Your task to perform on an android device: toggle pop-ups in chrome Image 0: 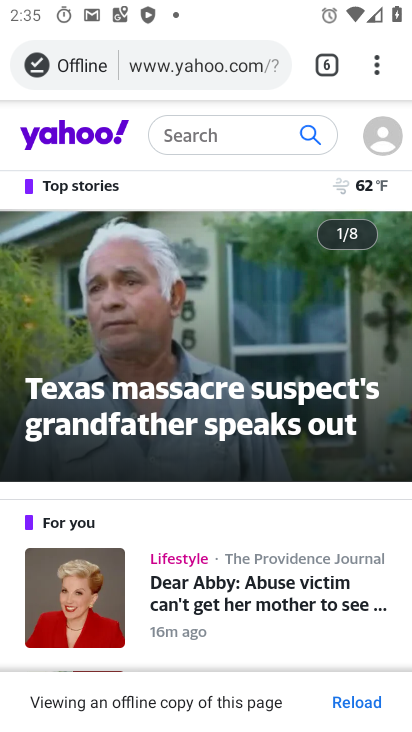
Step 0: press home button
Your task to perform on an android device: toggle pop-ups in chrome Image 1: 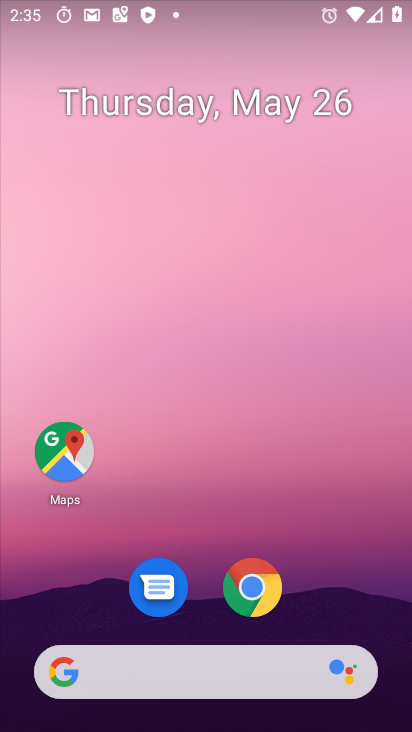
Step 1: drag from (277, 684) to (267, 161)
Your task to perform on an android device: toggle pop-ups in chrome Image 2: 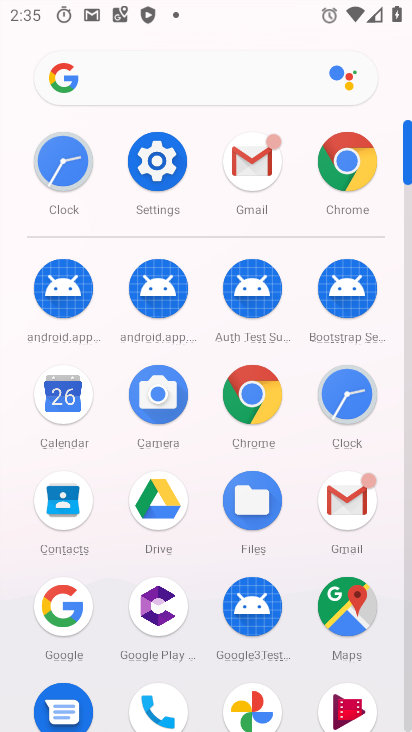
Step 2: click (367, 171)
Your task to perform on an android device: toggle pop-ups in chrome Image 3: 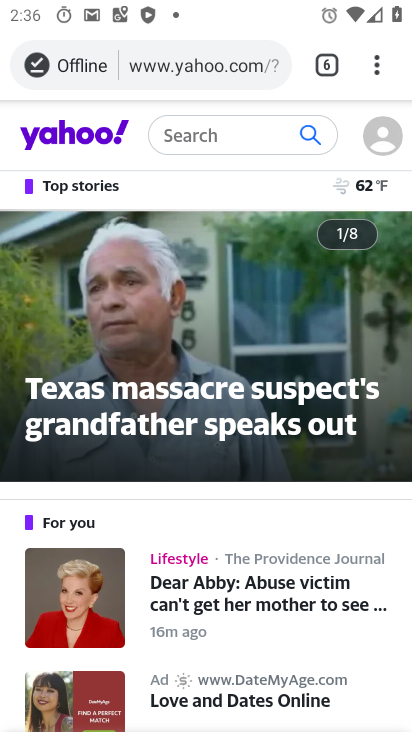
Step 3: click (383, 76)
Your task to perform on an android device: toggle pop-ups in chrome Image 4: 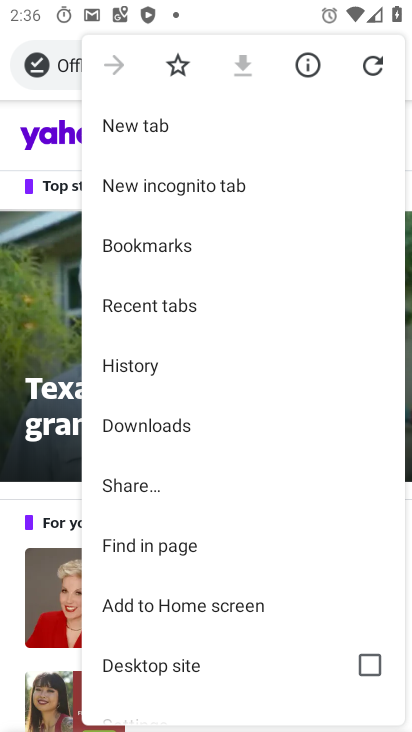
Step 4: drag from (203, 603) to (200, 186)
Your task to perform on an android device: toggle pop-ups in chrome Image 5: 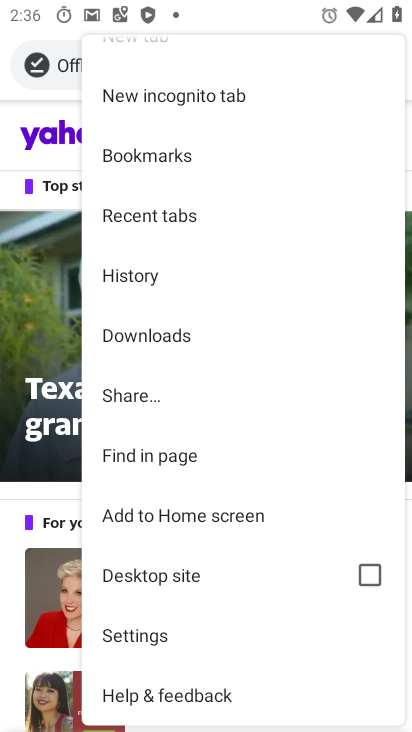
Step 5: click (161, 638)
Your task to perform on an android device: toggle pop-ups in chrome Image 6: 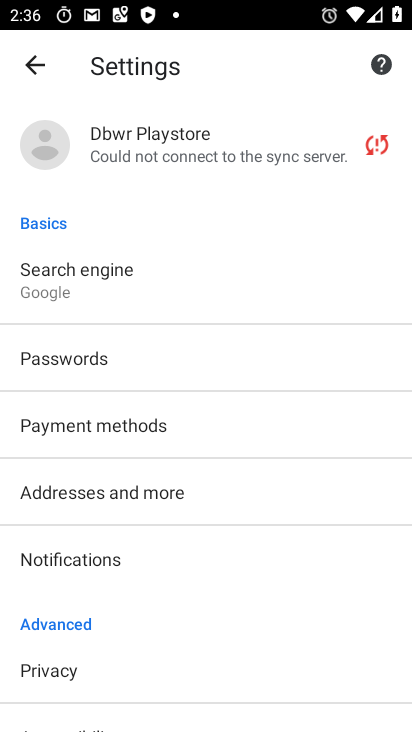
Step 6: drag from (256, 555) to (260, 264)
Your task to perform on an android device: toggle pop-ups in chrome Image 7: 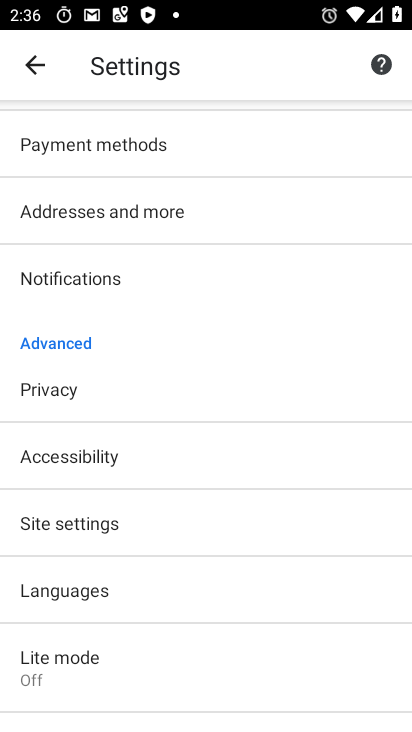
Step 7: click (153, 518)
Your task to perform on an android device: toggle pop-ups in chrome Image 8: 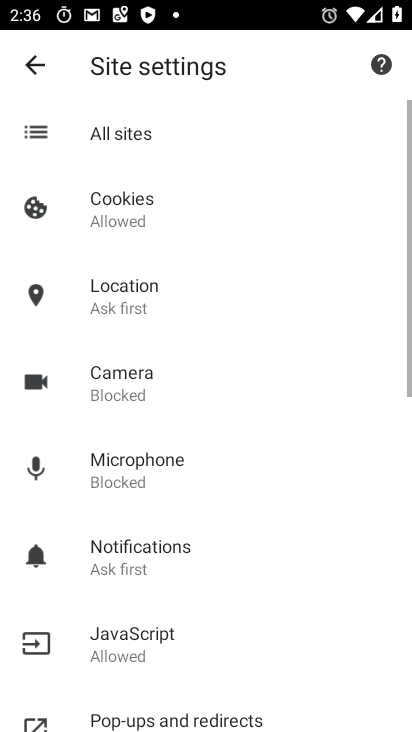
Step 8: drag from (166, 516) to (190, 287)
Your task to perform on an android device: toggle pop-ups in chrome Image 9: 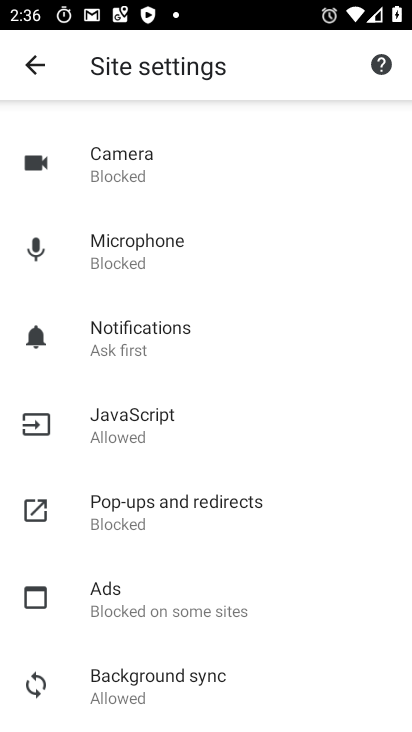
Step 9: click (189, 488)
Your task to perform on an android device: toggle pop-ups in chrome Image 10: 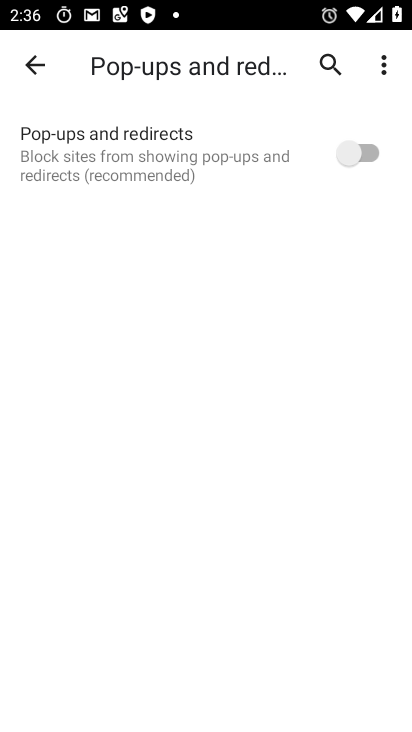
Step 10: task complete